Your task to perform on an android device: manage bookmarks in the chrome app Image 0: 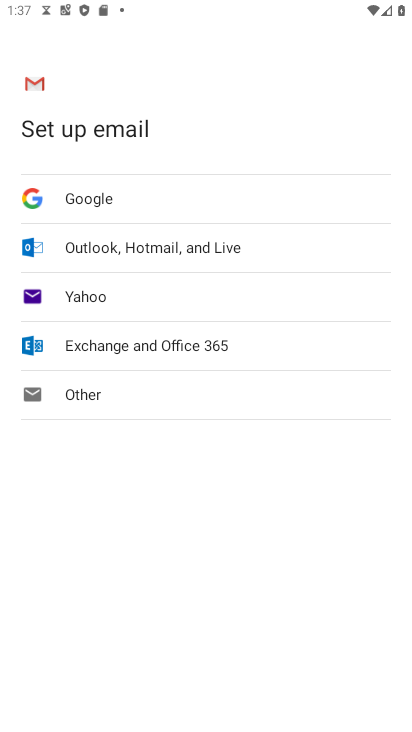
Step 0: press home button
Your task to perform on an android device: manage bookmarks in the chrome app Image 1: 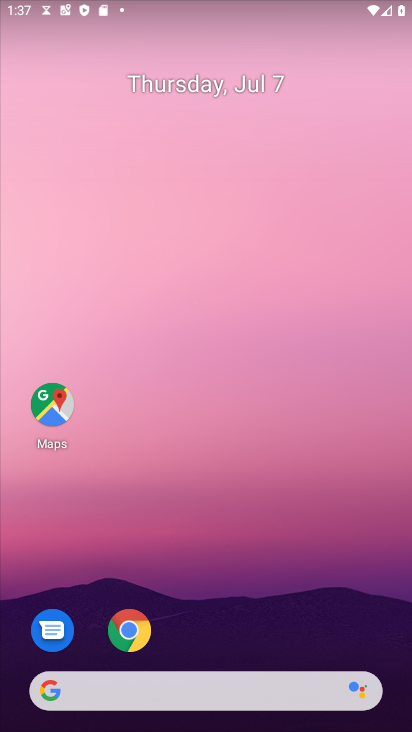
Step 1: drag from (267, 613) to (201, 91)
Your task to perform on an android device: manage bookmarks in the chrome app Image 2: 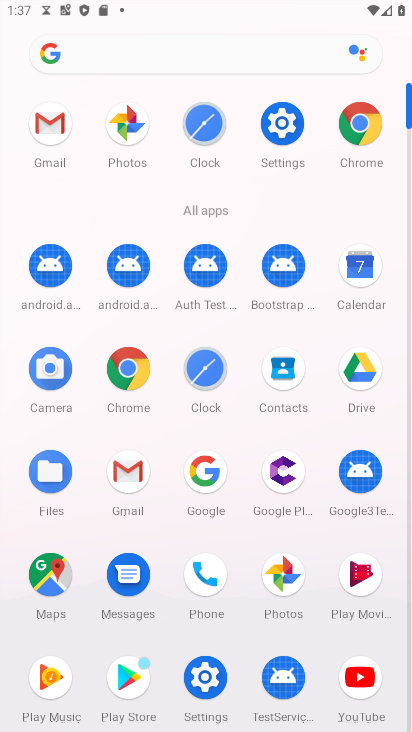
Step 2: click (372, 134)
Your task to perform on an android device: manage bookmarks in the chrome app Image 3: 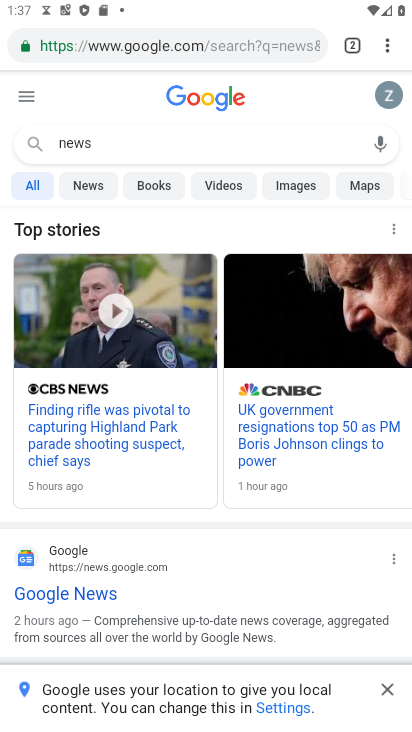
Step 3: click (389, 46)
Your task to perform on an android device: manage bookmarks in the chrome app Image 4: 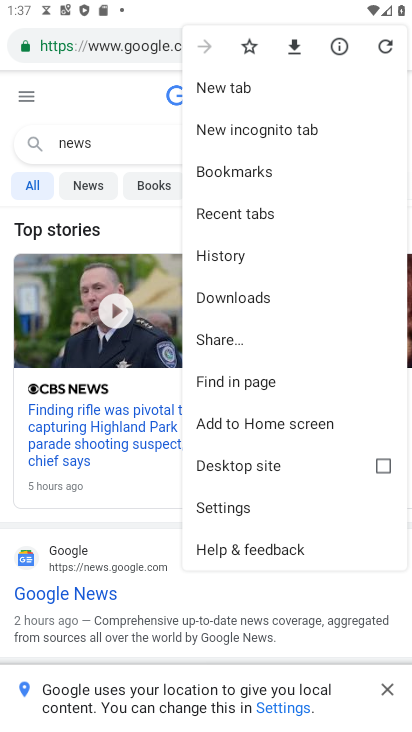
Step 4: click (322, 173)
Your task to perform on an android device: manage bookmarks in the chrome app Image 5: 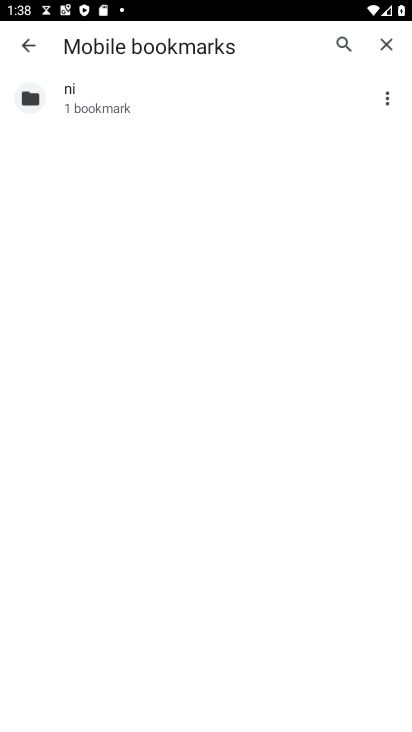
Step 5: click (239, 105)
Your task to perform on an android device: manage bookmarks in the chrome app Image 6: 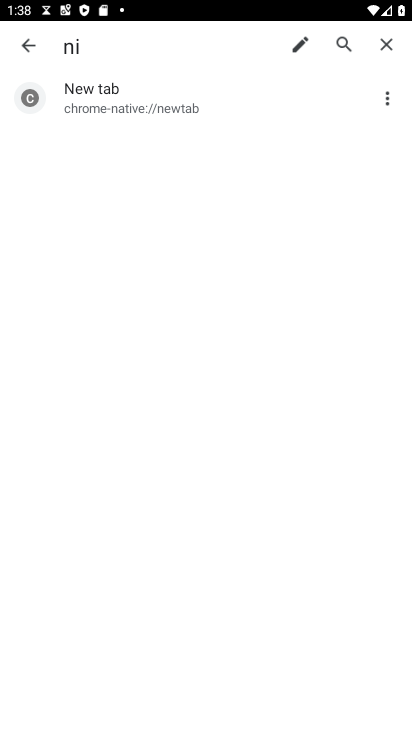
Step 6: click (239, 105)
Your task to perform on an android device: manage bookmarks in the chrome app Image 7: 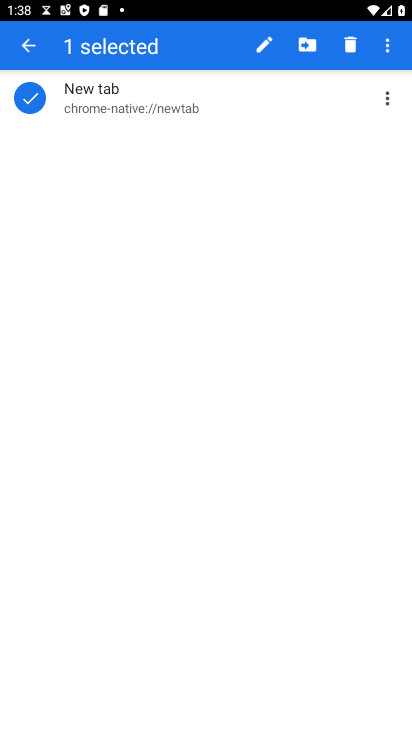
Step 7: click (263, 46)
Your task to perform on an android device: manage bookmarks in the chrome app Image 8: 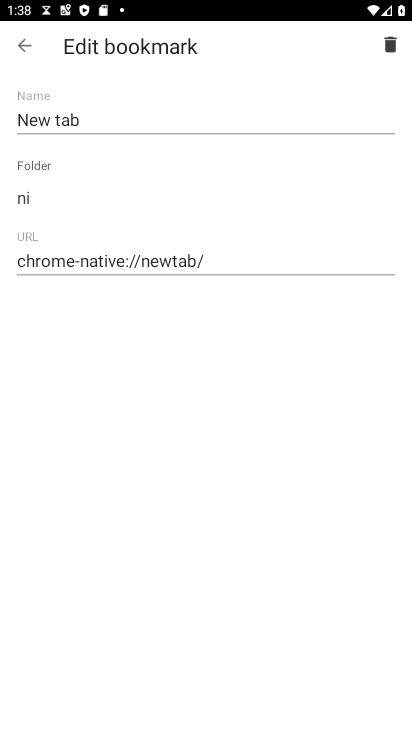
Step 8: click (237, 118)
Your task to perform on an android device: manage bookmarks in the chrome app Image 9: 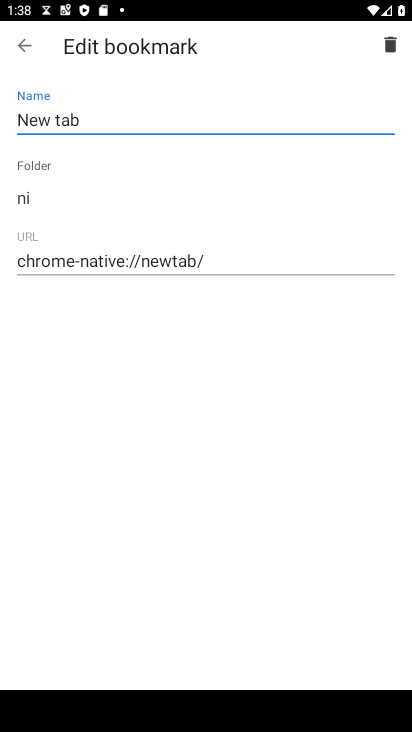
Step 9: type "jbhjb"
Your task to perform on an android device: manage bookmarks in the chrome app Image 10: 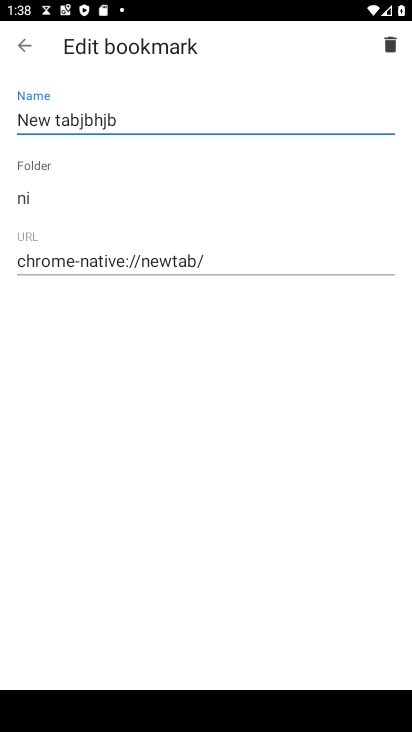
Step 10: press enter
Your task to perform on an android device: manage bookmarks in the chrome app Image 11: 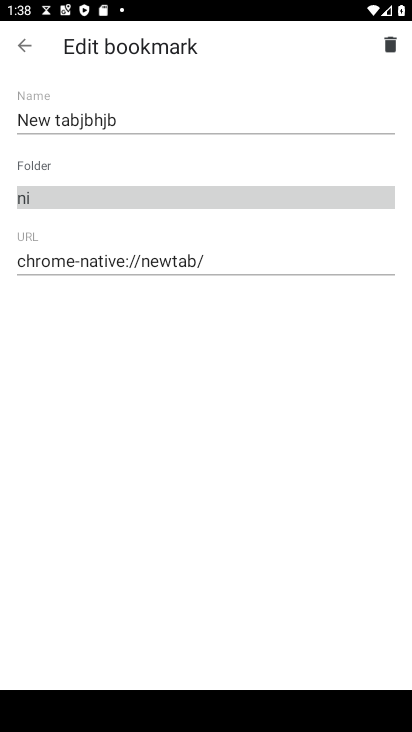
Step 11: press enter
Your task to perform on an android device: manage bookmarks in the chrome app Image 12: 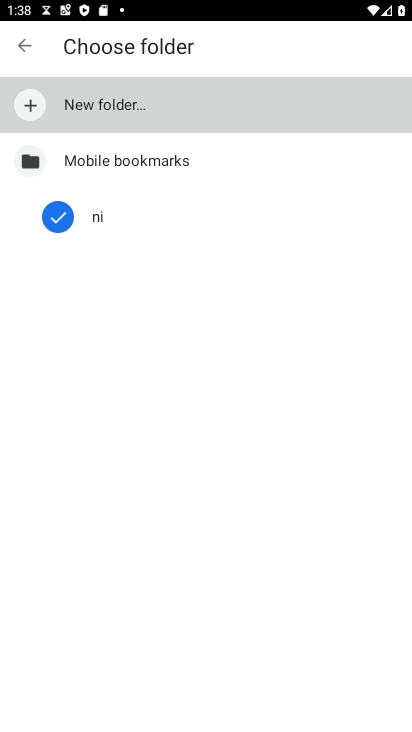
Step 12: task complete